Your task to perform on an android device: open a bookmark in the chrome app Image 0: 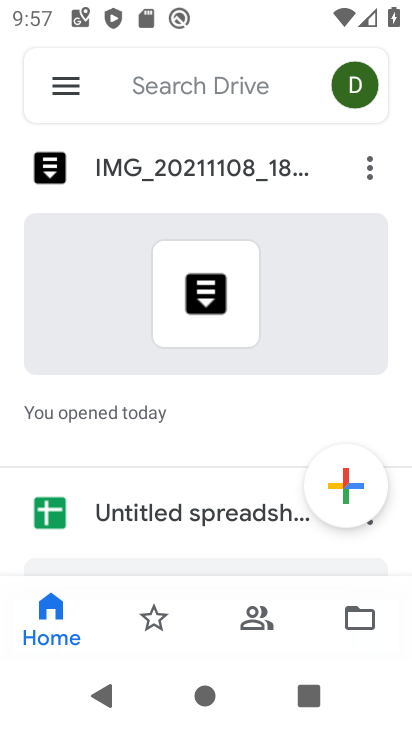
Step 0: press home button
Your task to perform on an android device: open a bookmark in the chrome app Image 1: 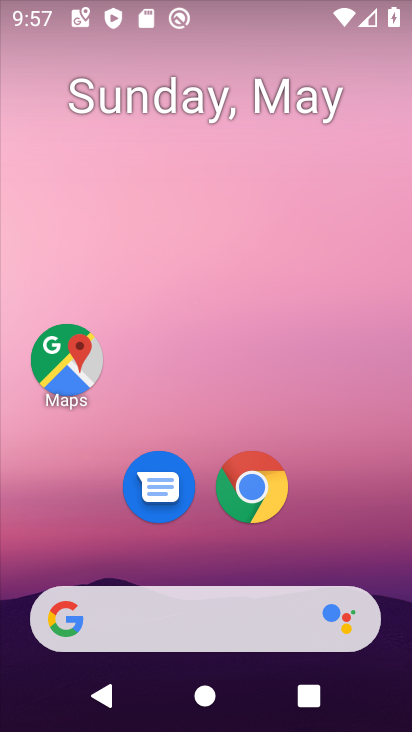
Step 1: drag from (386, 539) to (370, 133)
Your task to perform on an android device: open a bookmark in the chrome app Image 2: 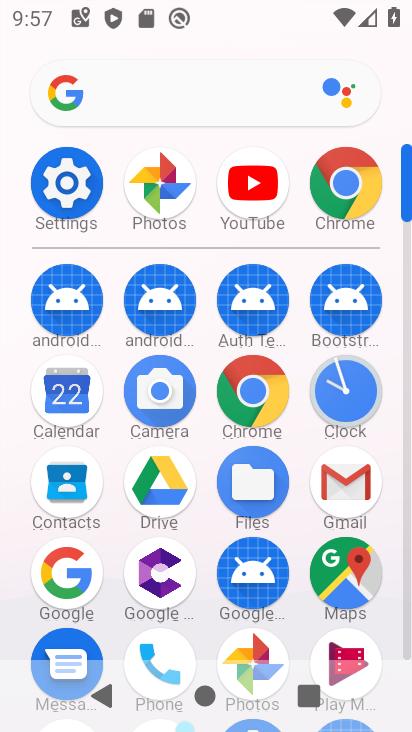
Step 2: click (258, 401)
Your task to perform on an android device: open a bookmark in the chrome app Image 3: 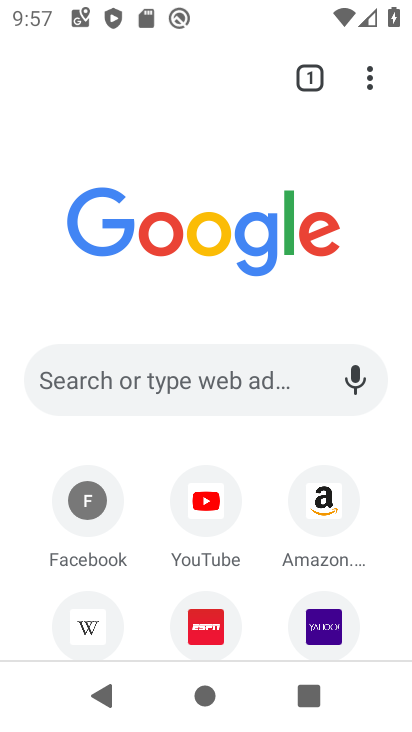
Step 3: click (370, 93)
Your task to perform on an android device: open a bookmark in the chrome app Image 4: 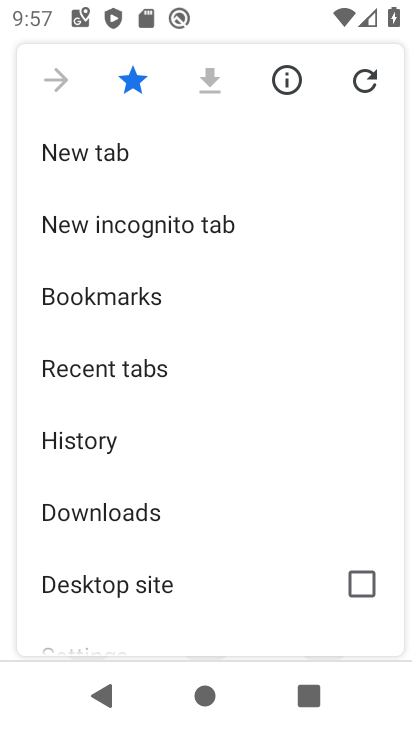
Step 4: drag from (265, 471) to (277, 378)
Your task to perform on an android device: open a bookmark in the chrome app Image 5: 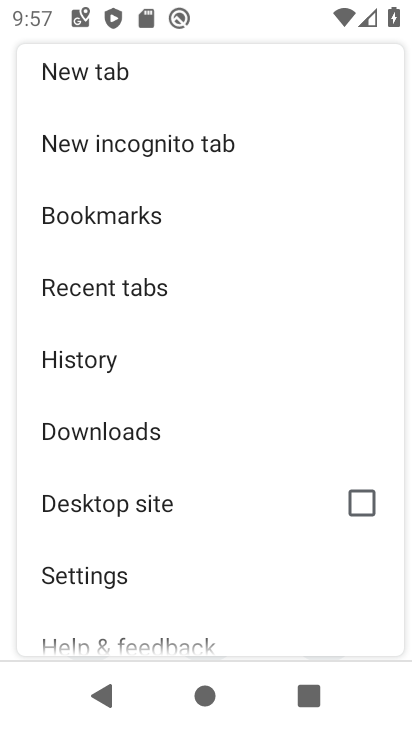
Step 5: drag from (271, 530) to (279, 403)
Your task to perform on an android device: open a bookmark in the chrome app Image 6: 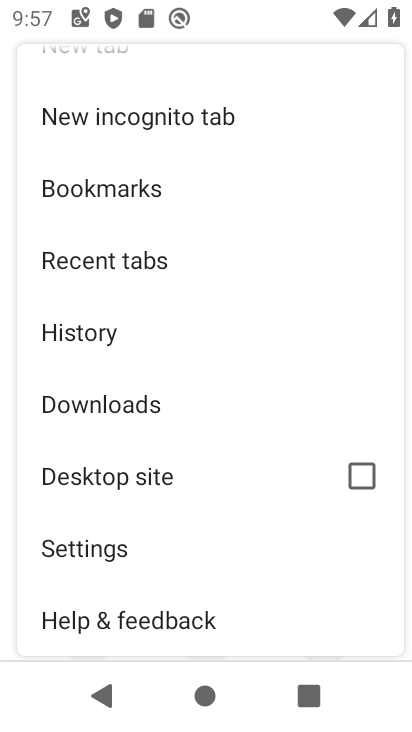
Step 6: drag from (283, 314) to (282, 436)
Your task to perform on an android device: open a bookmark in the chrome app Image 7: 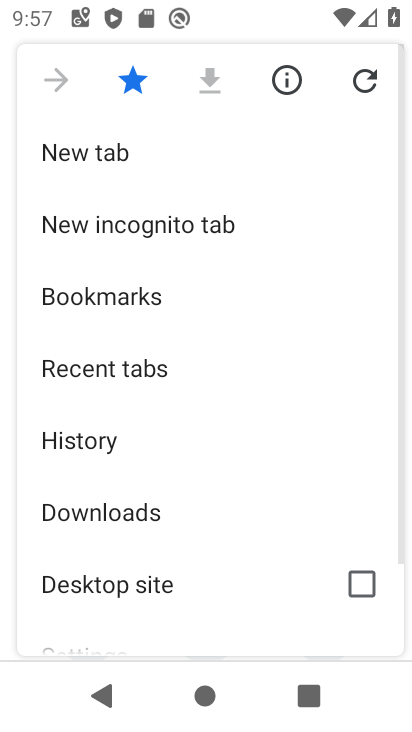
Step 7: drag from (284, 329) to (272, 449)
Your task to perform on an android device: open a bookmark in the chrome app Image 8: 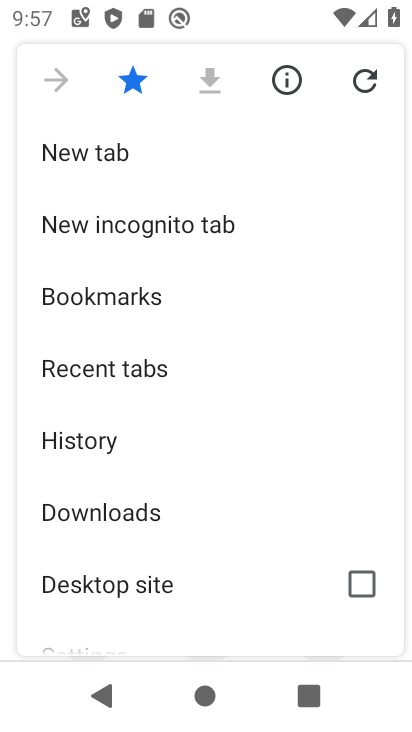
Step 8: click (203, 315)
Your task to perform on an android device: open a bookmark in the chrome app Image 9: 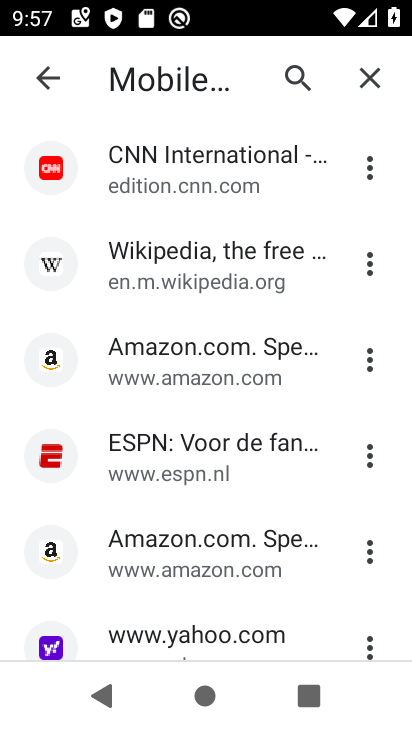
Step 9: click (202, 262)
Your task to perform on an android device: open a bookmark in the chrome app Image 10: 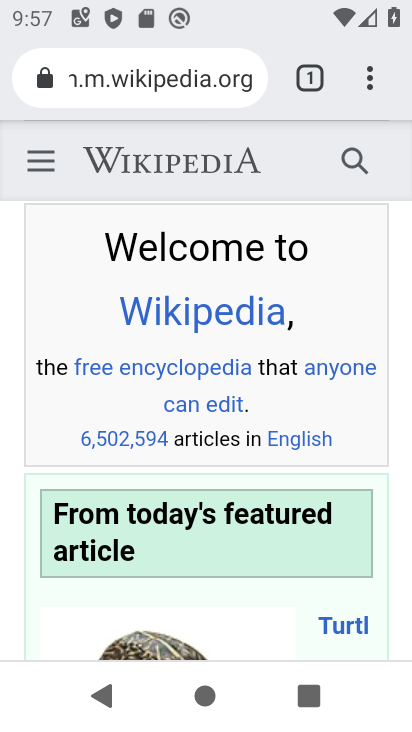
Step 10: task complete